Your task to perform on an android device: see sites visited before in the chrome app Image 0: 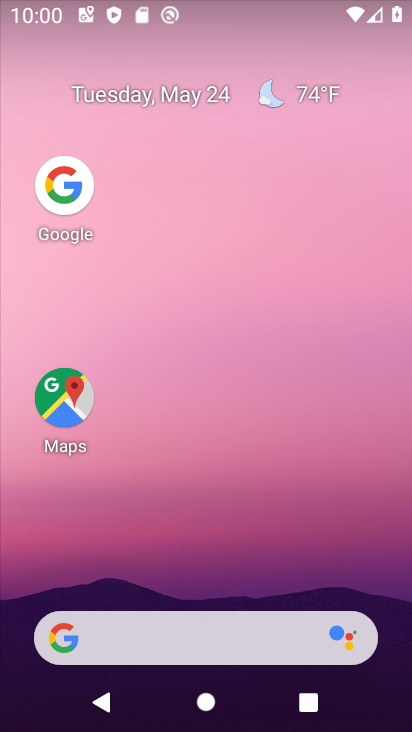
Step 0: drag from (208, 591) to (143, 82)
Your task to perform on an android device: see sites visited before in the chrome app Image 1: 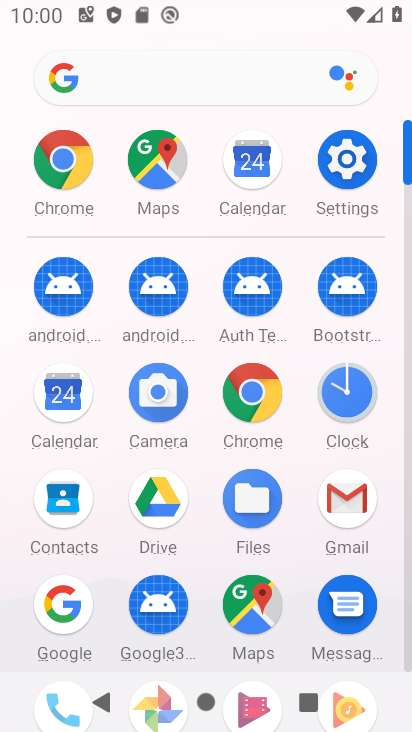
Step 1: click (262, 411)
Your task to perform on an android device: see sites visited before in the chrome app Image 2: 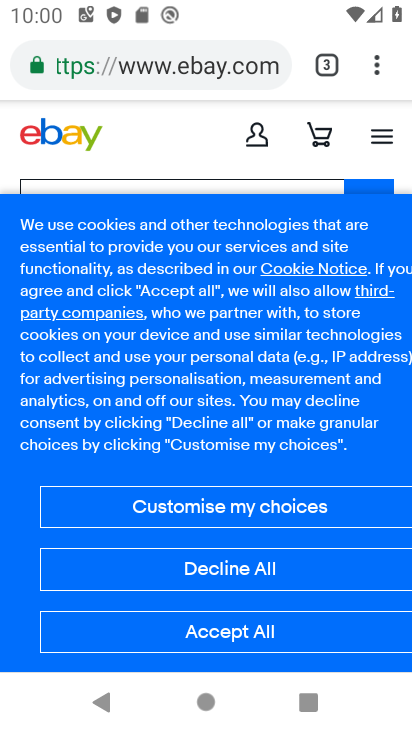
Step 2: click (323, 69)
Your task to perform on an android device: see sites visited before in the chrome app Image 3: 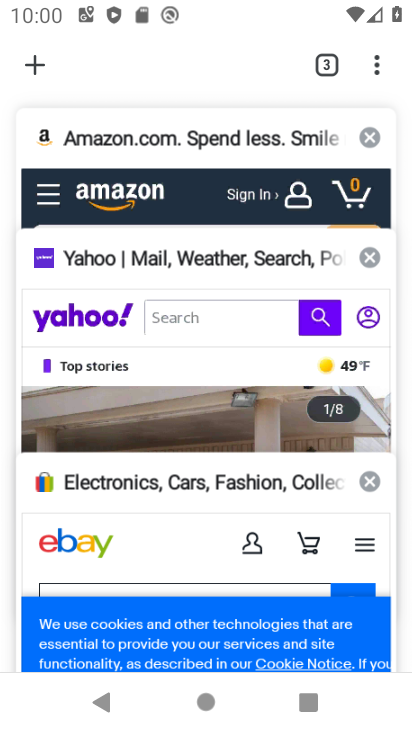
Step 3: task complete